Your task to perform on an android device: find photos in the google photos app Image 0: 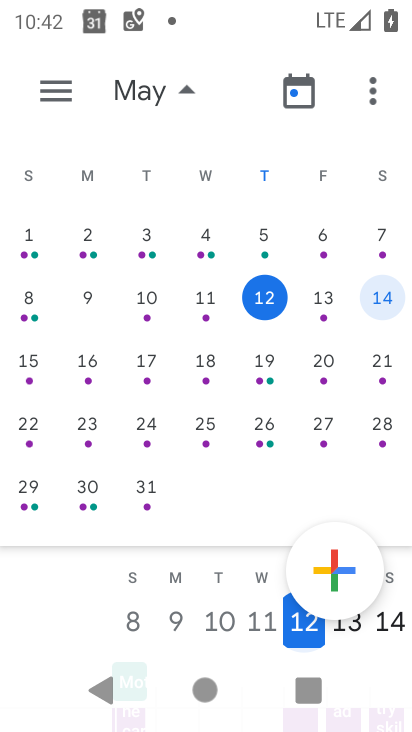
Step 0: press home button
Your task to perform on an android device: find photos in the google photos app Image 1: 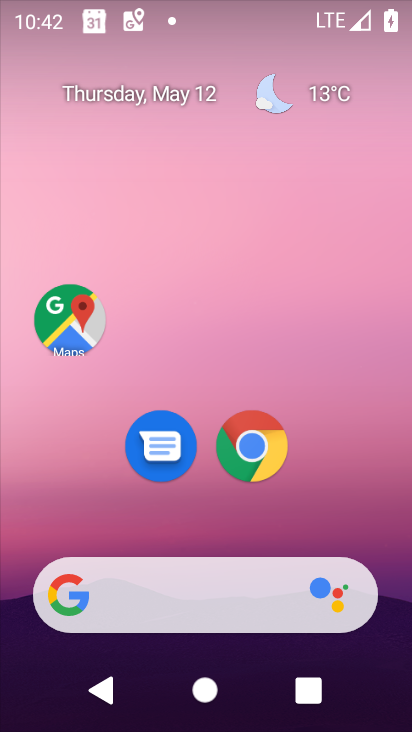
Step 1: drag from (226, 619) to (310, 75)
Your task to perform on an android device: find photos in the google photos app Image 2: 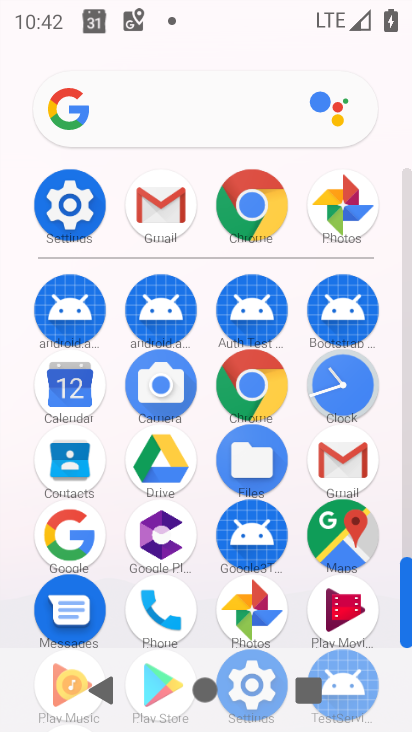
Step 2: drag from (290, 632) to (306, 419)
Your task to perform on an android device: find photos in the google photos app Image 3: 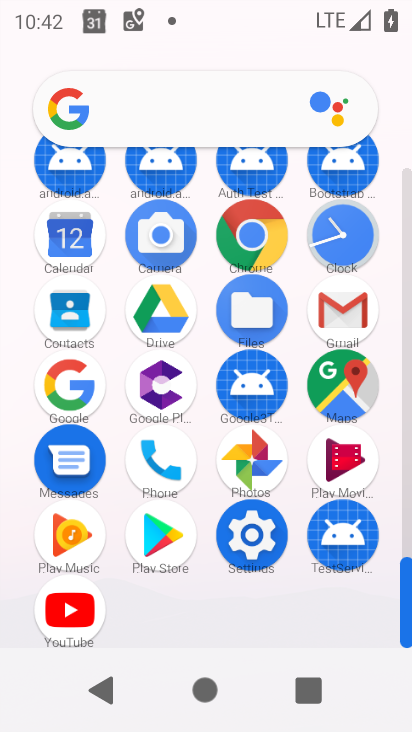
Step 3: click (234, 472)
Your task to perform on an android device: find photos in the google photos app Image 4: 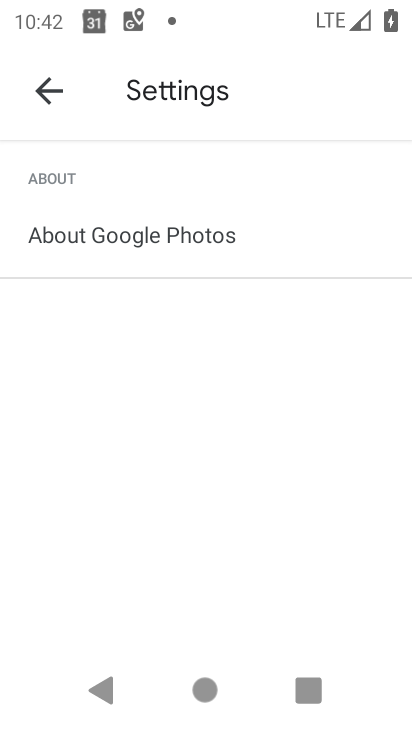
Step 4: task complete